Your task to perform on an android device: open app "Lyft - Rideshare, Bikes, Scooters & Transit" (install if not already installed) and enter user name: "deliberating@gmail.com" and password: "preyed" Image 0: 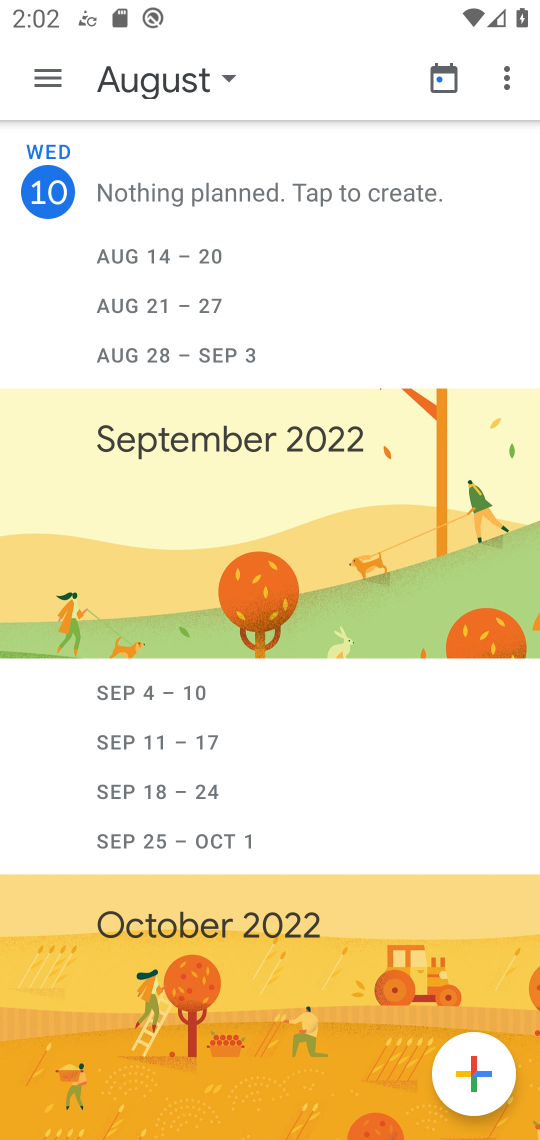
Step 0: press home button
Your task to perform on an android device: open app "Lyft - Rideshare, Bikes, Scooters & Transit" (install if not already installed) and enter user name: "deliberating@gmail.com" and password: "preyed" Image 1: 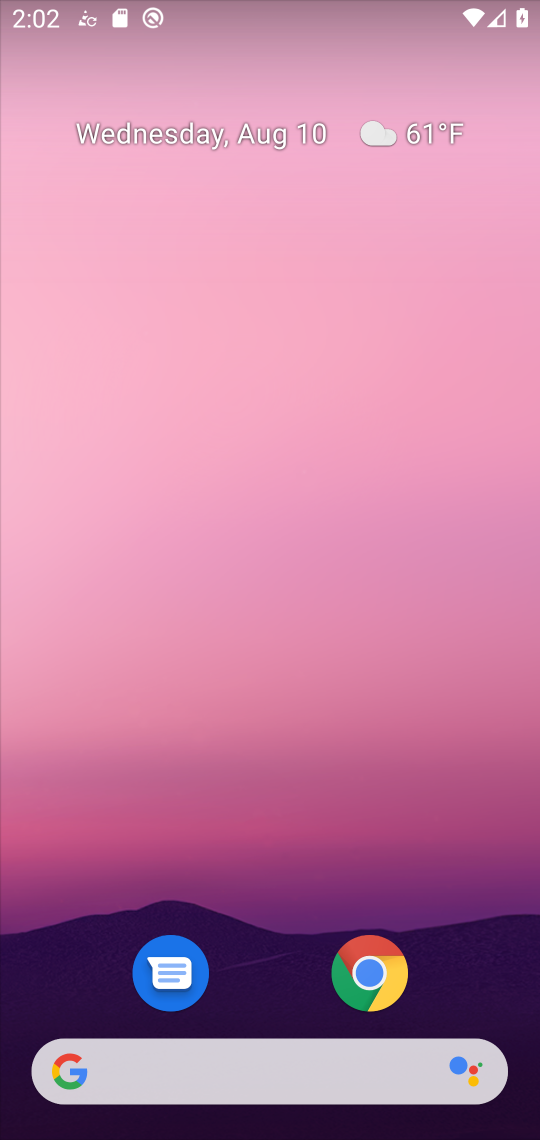
Step 1: drag from (258, 988) to (303, 554)
Your task to perform on an android device: open app "Lyft - Rideshare, Bikes, Scooters & Transit" (install if not already installed) and enter user name: "deliberating@gmail.com" and password: "preyed" Image 2: 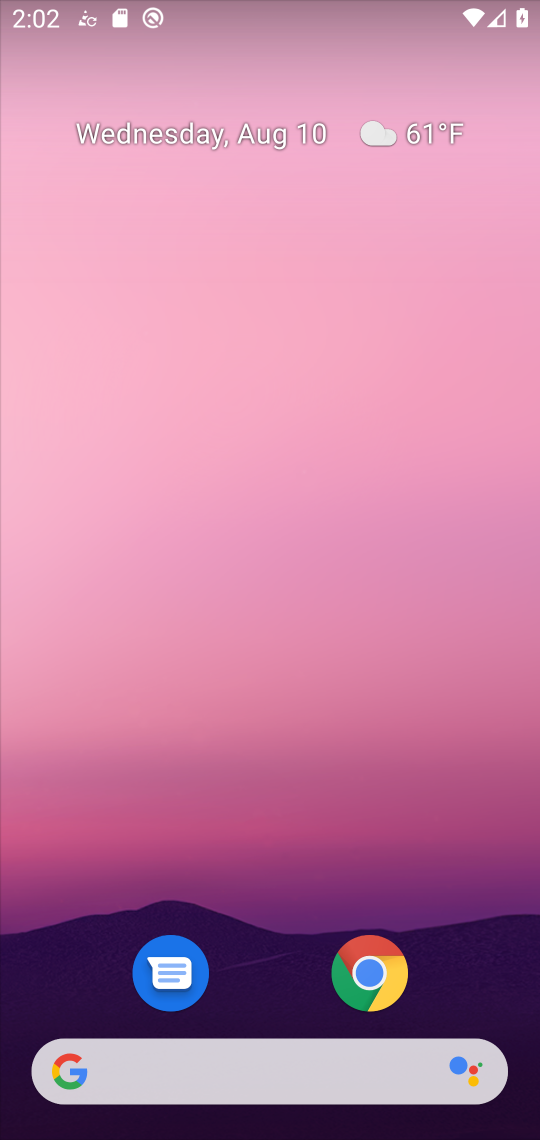
Step 2: drag from (217, 1082) to (374, 221)
Your task to perform on an android device: open app "Lyft - Rideshare, Bikes, Scooters & Transit" (install if not already installed) and enter user name: "deliberating@gmail.com" and password: "preyed" Image 3: 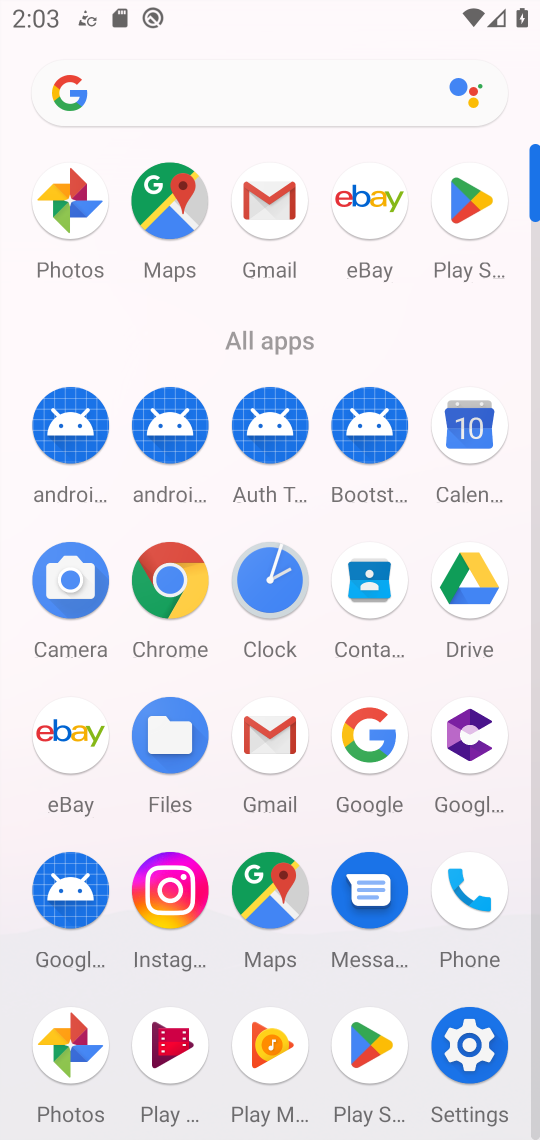
Step 3: click (356, 1045)
Your task to perform on an android device: open app "Lyft - Rideshare, Bikes, Scooters & Transit" (install if not already installed) and enter user name: "deliberating@gmail.com" and password: "preyed" Image 4: 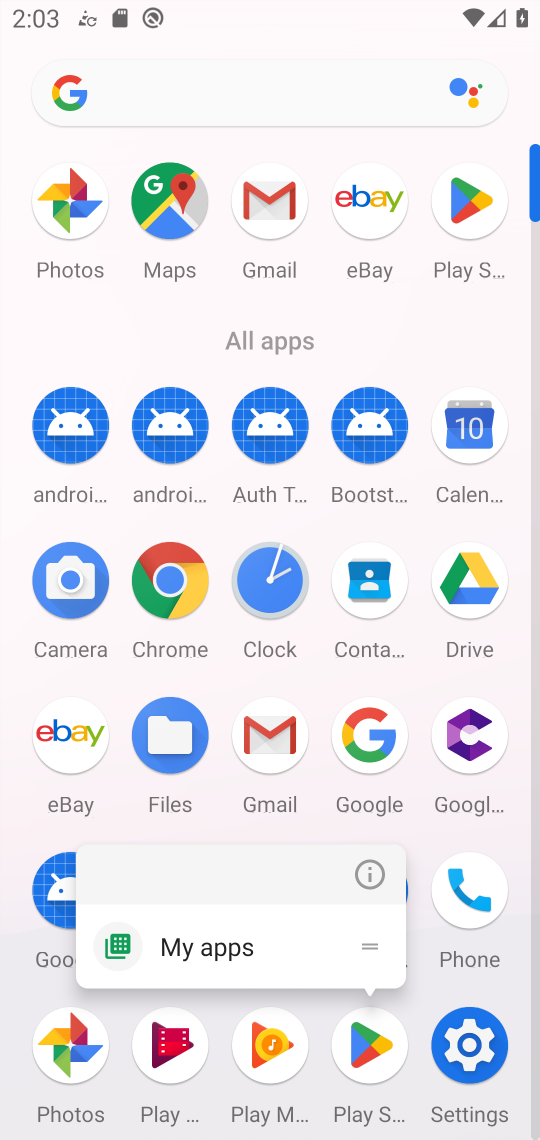
Step 4: click (356, 1045)
Your task to perform on an android device: open app "Lyft - Rideshare, Bikes, Scooters & Transit" (install if not already installed) and enter user name: "deliberating@gmail.com" and password: "preyed" Image 5: 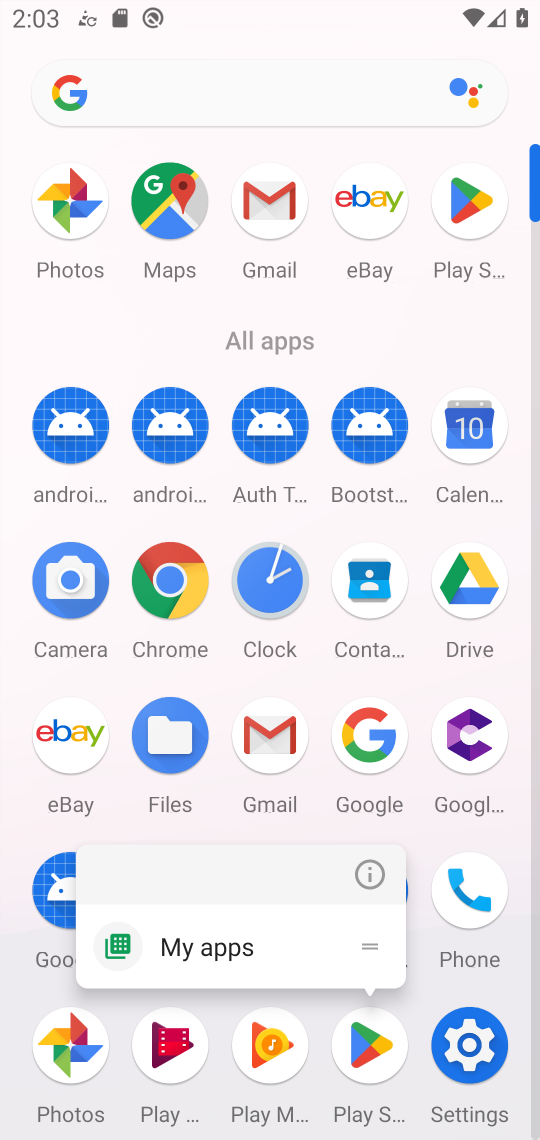
Step 5: click (368, 1039)
Your task to perform on an android device: open app "Lyft - Rideshare, Bikes, Scooters & Transit" (install if not already installed) and enter user name: "deliberating@gmail.com" and password: "preyed" Image 6: 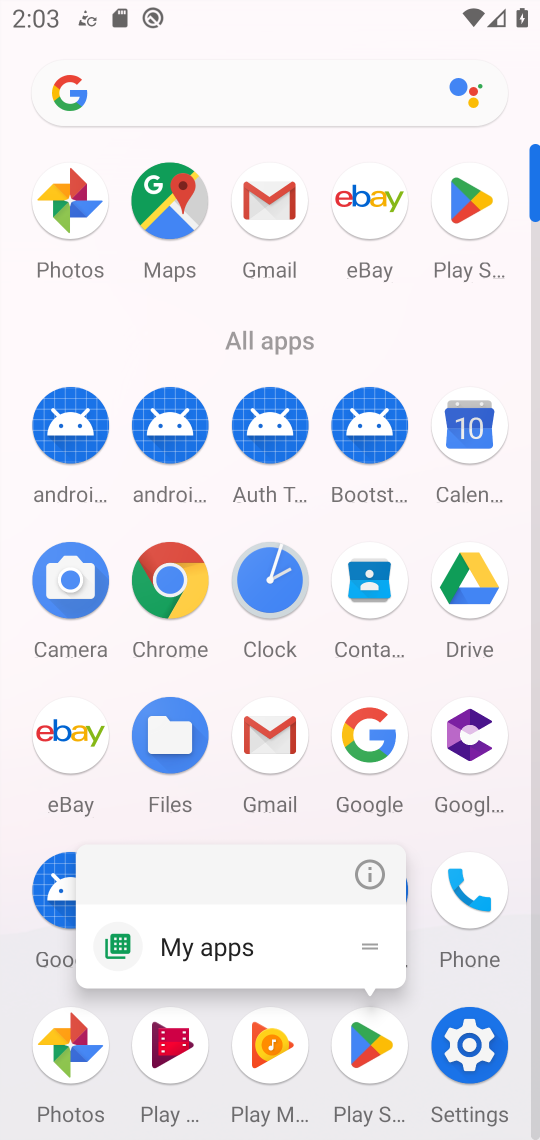
Step 6: click (455, 217)
Your task to perform on an android device: open app "Lyft - Rideshare, Bikes, Scooters & Transit" (install if not already installed) and enter user name: "deliberating@gmail.com" and password: "preyed" Image 7: 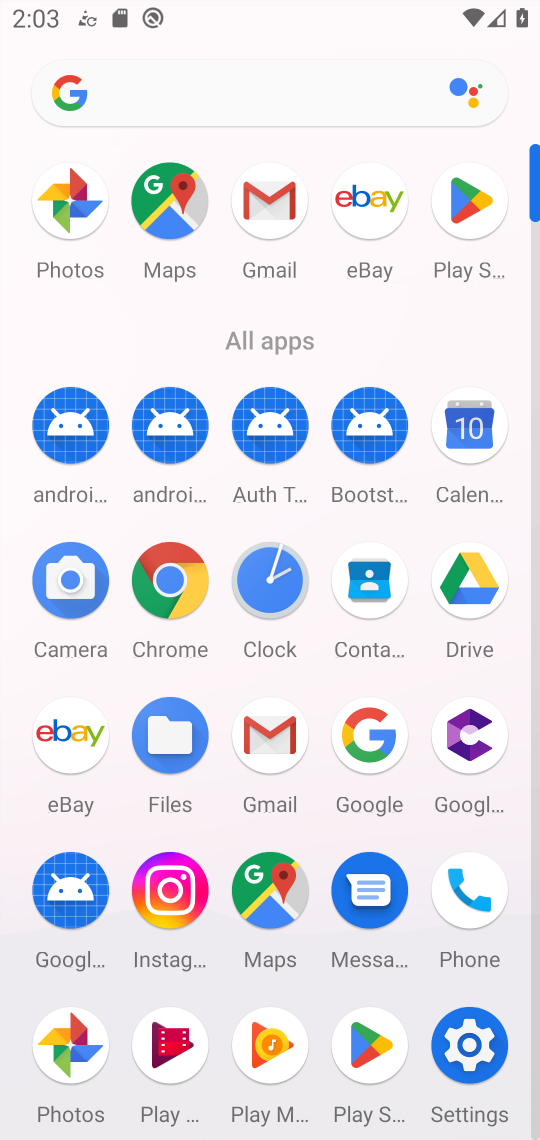
Step 7: click (461, 205)
Your task to perform on an android device: open app "Lyft - Rideshare, Bikes, Scooters & Transit" (install if not already installed) and enter user name: "deliberating@gmail.com" and password: "preyed" Image 8: 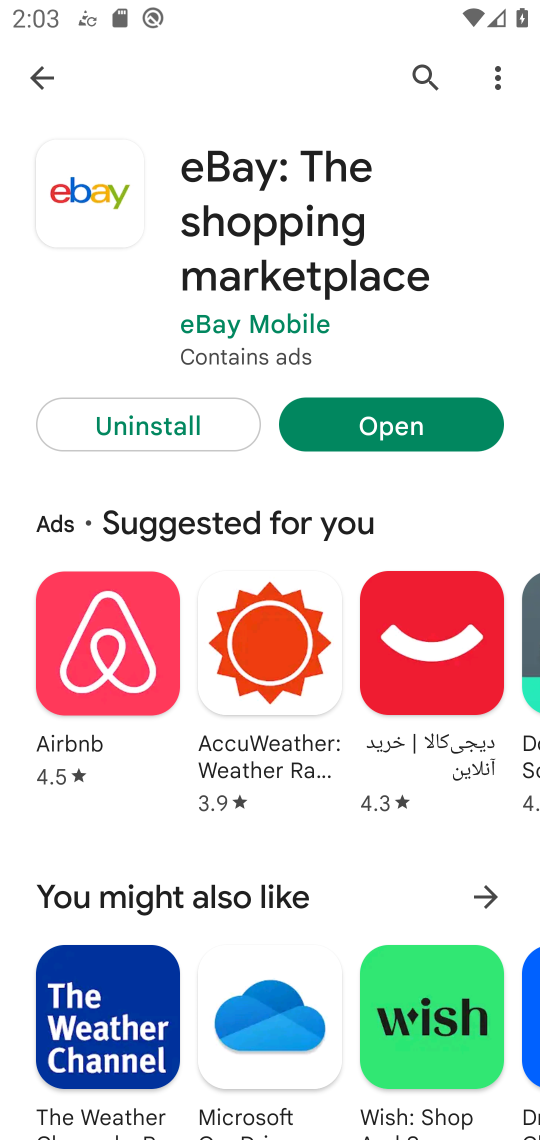
Step 8: click (461, 205)
Your task to perform on an android device: open app "Lyft - Rideshare, Bikes, Scooters & Transit" (install if not already installed) and enter user name: "deliberating@gmail.com" and password: "preyed" Image 9: 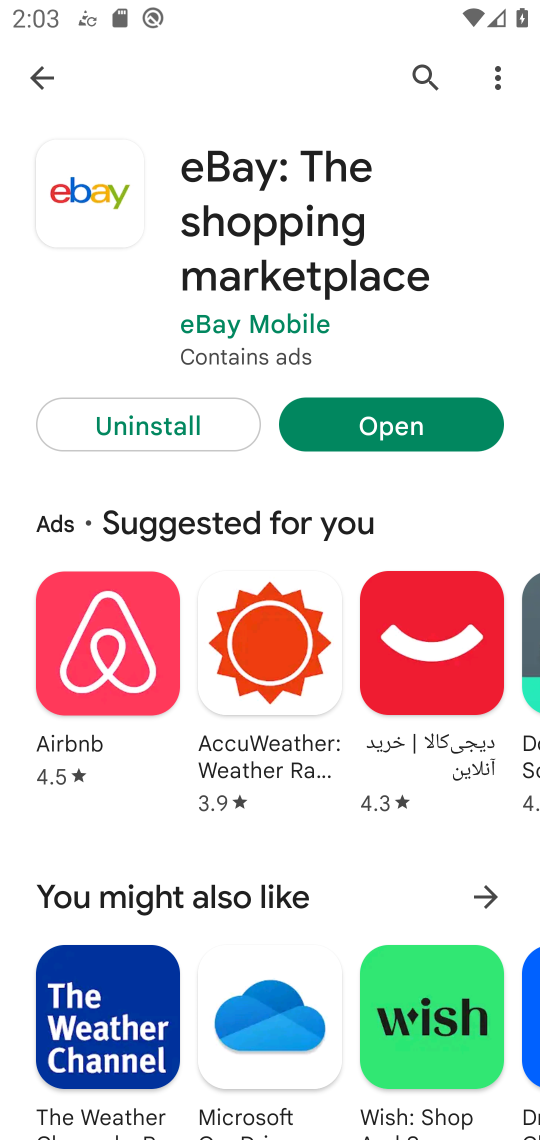
Step 9: click (34, 88)
Your task to perform on an android device: open app "Lyft - Rideshare, Bikes, Scooters & Transit" (install if not already installed) and enter user name: "deliberating@gmail.com" and password: "preyed" Image 10: 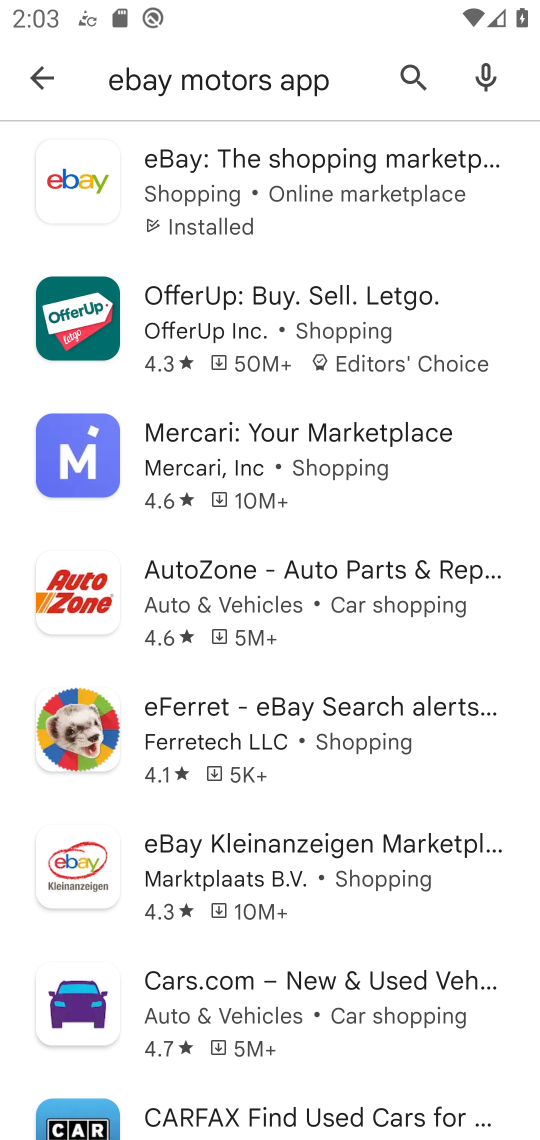
Step 10: click (31, 85)
Your task to perform on an android device: open app "Lyft - Rideshare, Bikes, Scooters & Transit" (install if not already installed) and enter user name: "deliberating@gmail.com" and password: "preyed" Image 11: 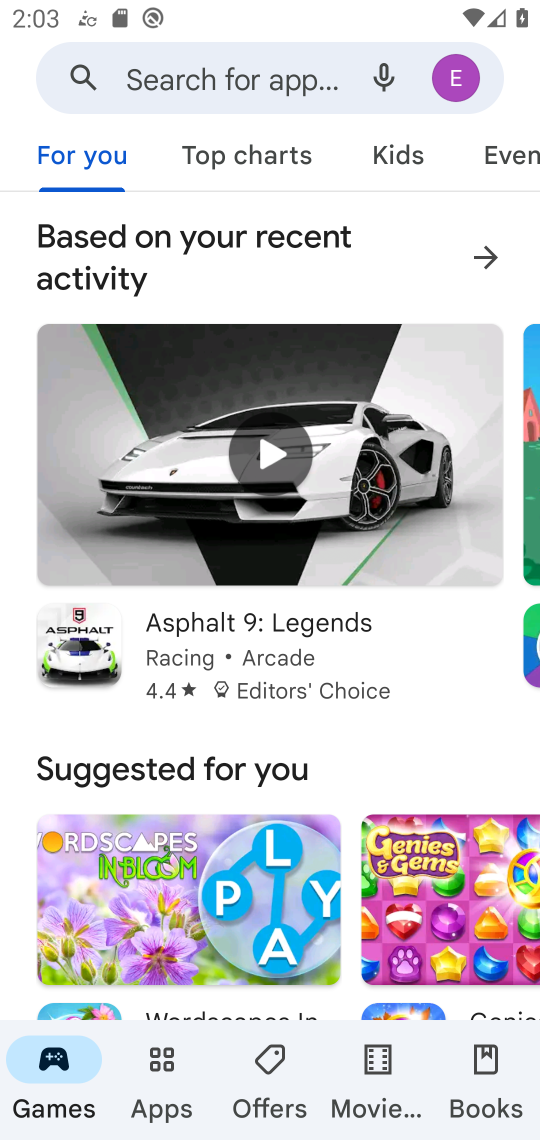
Step 11: click (135, 70)
Your task to perform on an android device: open app "Lyft - Rideshare, Bikes, Scooters & Transit" (install if not already installed) and enter user name: "deliberating@gmail.com" and password: "preyed" Image 12: 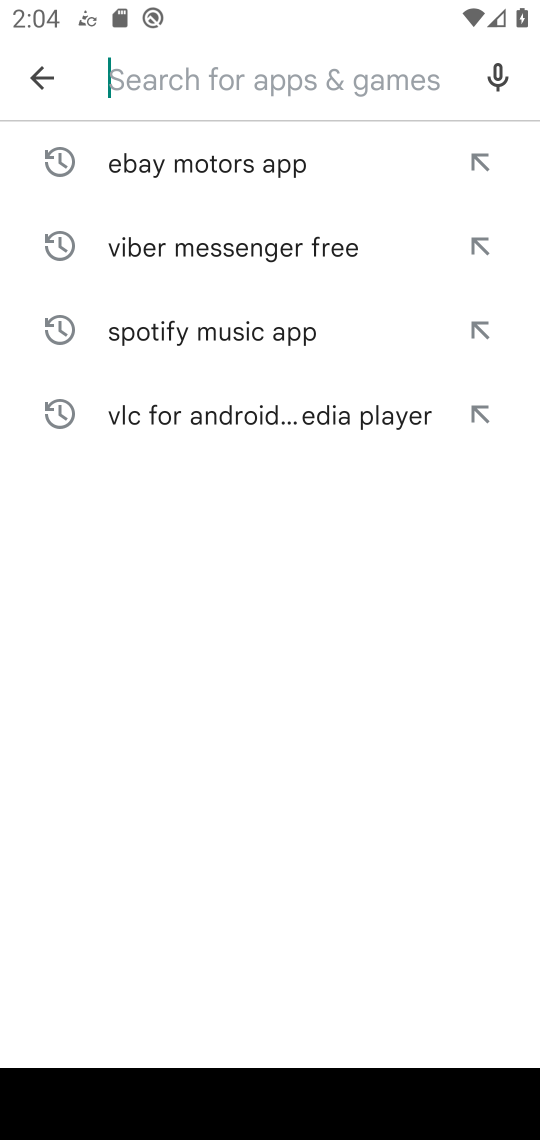
Step 12: type "lyft"
Your task to perform on an android device: open app "Lyft - Rideshare, Bikes, Scooters & Transit" (install if not already installed) and enter user name: "deliberating@gmail.com" and password: "preyed" Image 13: 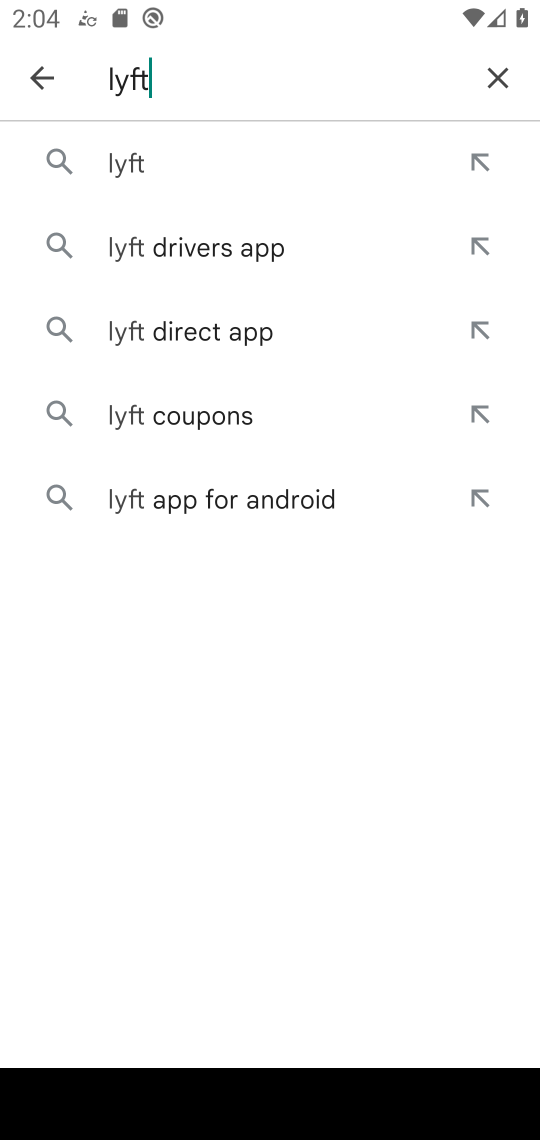
Step 13: click (171, 162)
Your task to perform on an android device: open app "Lyft - Rideshare, Bikes, Scooters & Transit" (install if not already installed) and enter user name: "deliberating@gmail.com" and password: "preyed" Image 14: 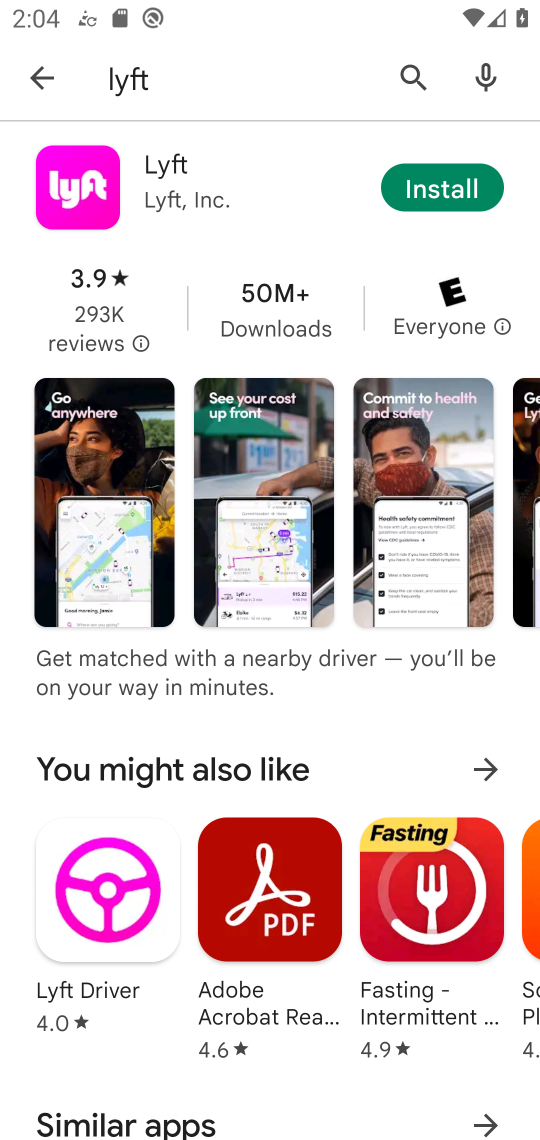
Step 14: click (454, 170)
Your task to perform on an android device: open app "Lyft - Rideshare, Bikes, Scooters & Transit" (install if not already installed) and enter user name: "deliberating@gmail.com" and password: "preyed" Image 15: 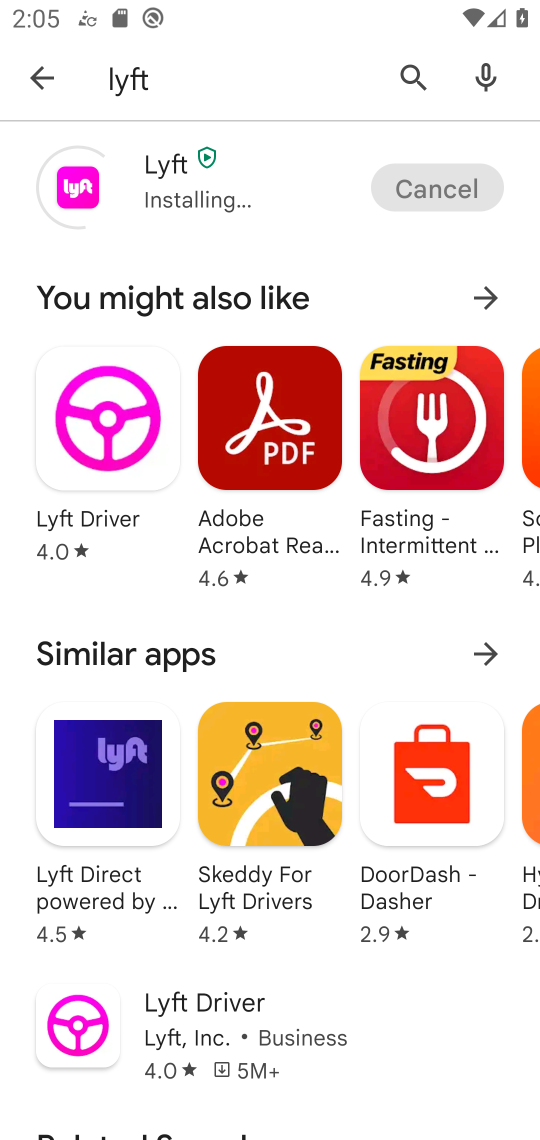
Step 15: task complete